Your task to perform on an android device: uninstall "Duolingo: language lessons" Image 0: 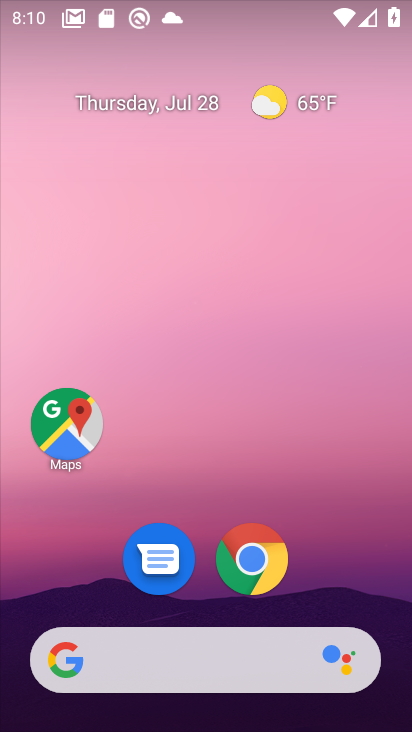
Step 0: drag from (191, 619) to (181, 11)
Your task to perform on an android device: uninstall "Duolingo: language lessons" Image 1: 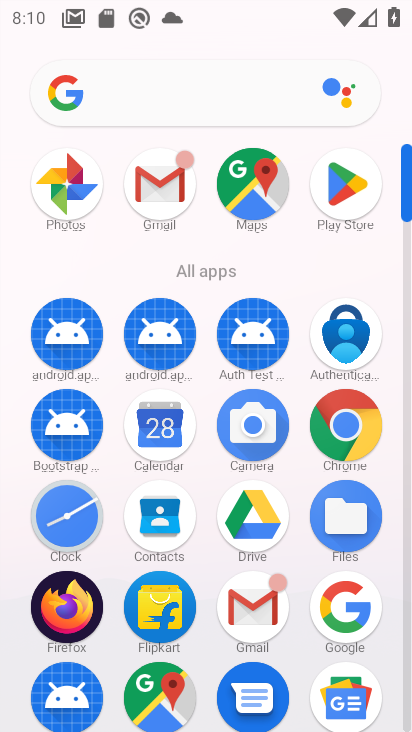
Step 1: click (354, 162)
Your task to perform on an android device: uninstall "Duolingo: language lessons" Image 2: 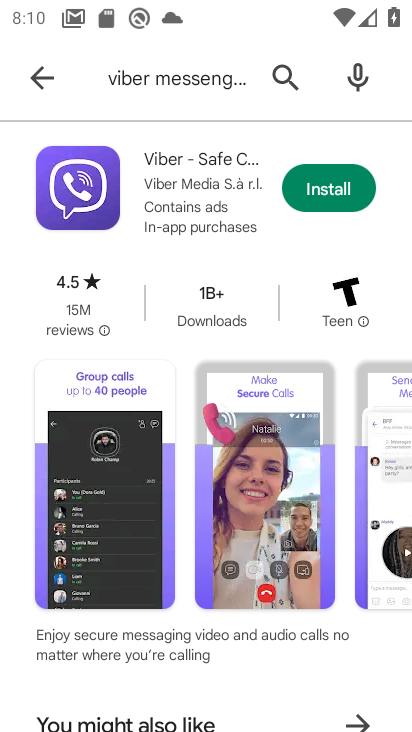
Step 2: click (158, 79)
Your task to perform on an android device: uninstall "Duolingo: language lessons" Image 3: 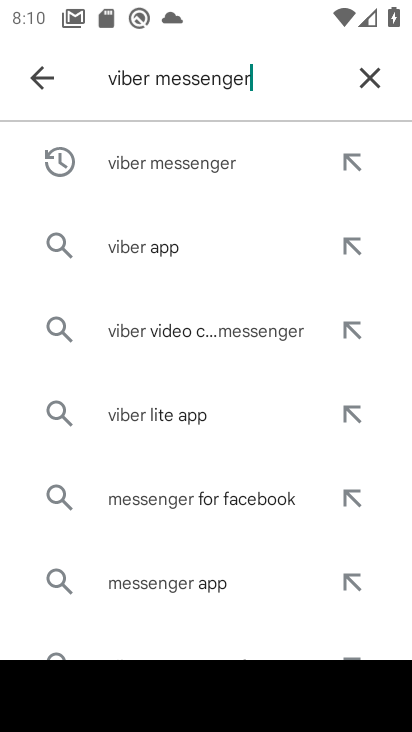
Step 3: click (372, 77)
Your task to perform on an android device: uninstall "Duolingo: language lessons" Image 4: 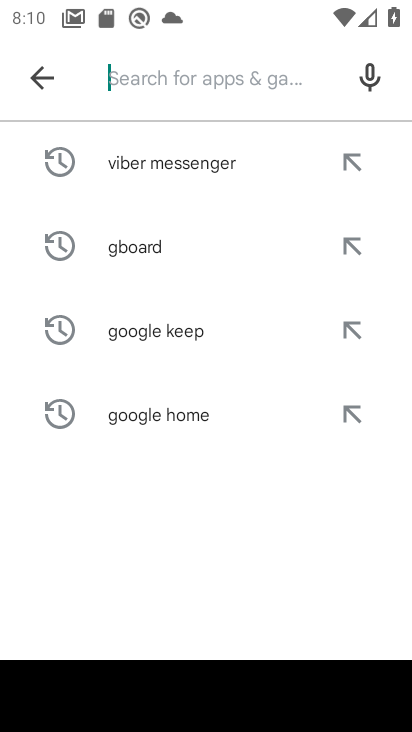
Step 4: type "Duolingo"
Your task to perform on an android device: uninstall "Duolingo: language lessons" Image 5: 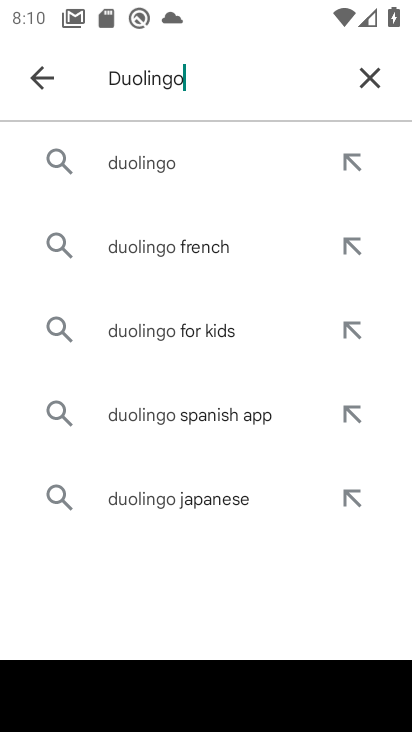
Step 5: click (153, 168)
Your task to perform on an android device: uninstall "Duolingo: language lessons" Image 6: 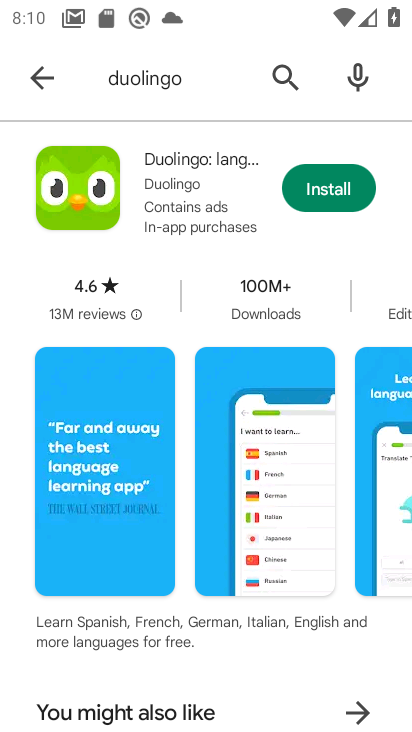
Step 6: task complete